Your task to perform on an android device: turn off javascript in the chrome app Image 0: 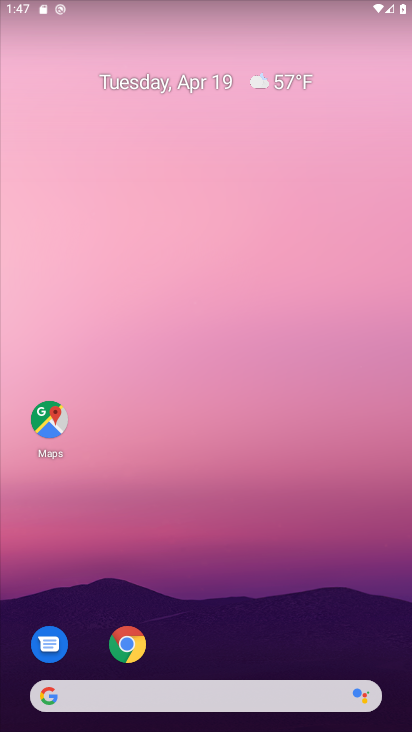
Step 0: click (118, 644)
Your task to perform on an android device: turn off javascript in the chrome app Image 1: 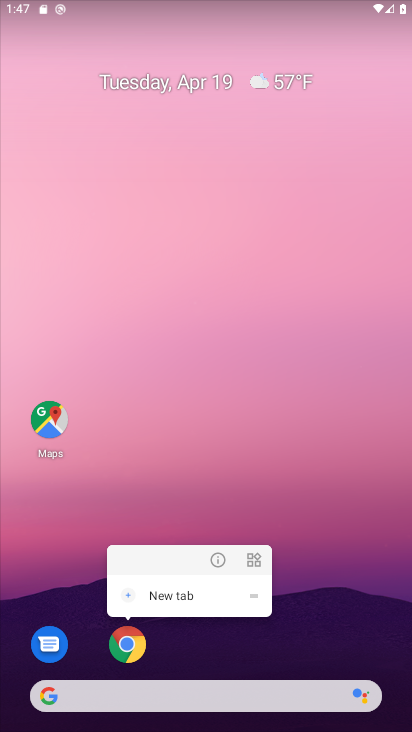
Step 1: click (118, 644)
Your task to perform on an android device: turn off javascript in the chrome app Image 2: 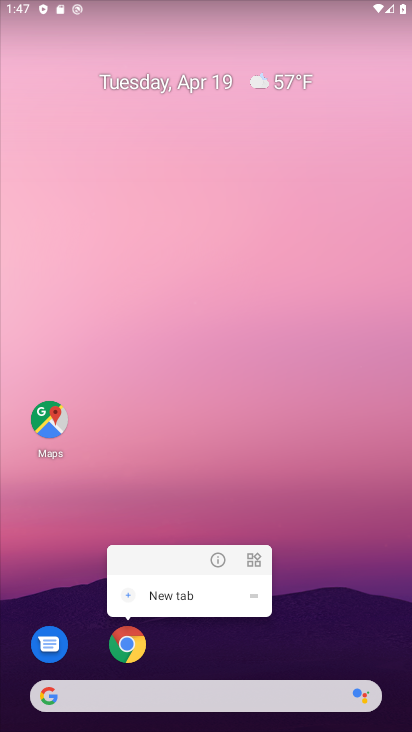
Step 2: click (130, 645)
Your task to perform on an android device: turn off javascript in the chrome app Image 3: 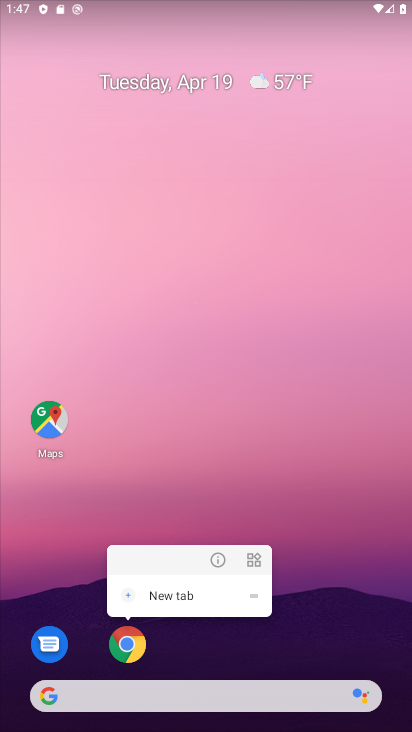
Step 3: click (130, 645)
Your task to perform on an android device: turn off javascript in the chrome app Image 4: 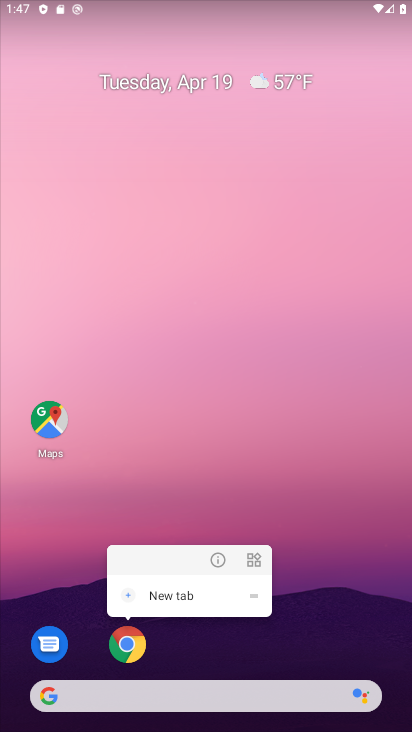
Step 4: click (118, 658)
Your task to perform on an android device: turn off javascript in the chrome app Image 5: 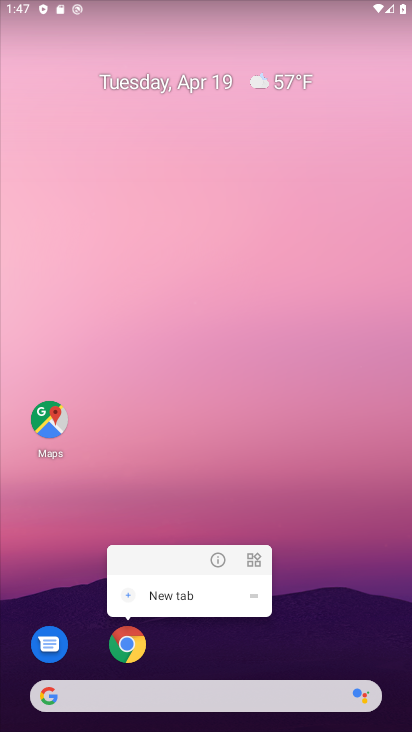
Step 5: click (118, 658)
Your task to perform on an android device: turn off javascript in the chrome app Image 6: 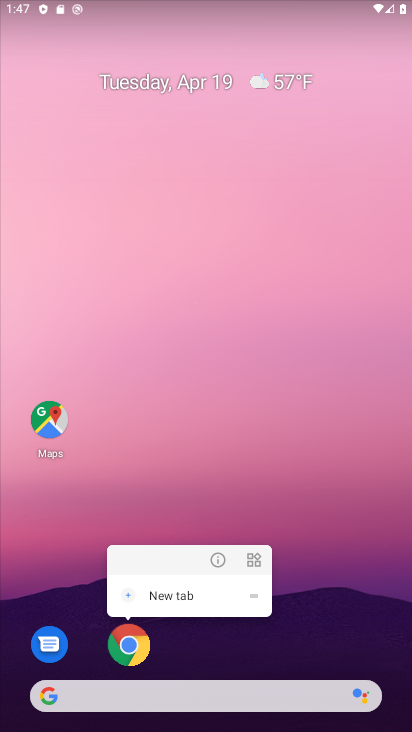
Step 6: click (118, 658)
Your task to perform on an android device: turn off javascript in the chrome app Image 7: 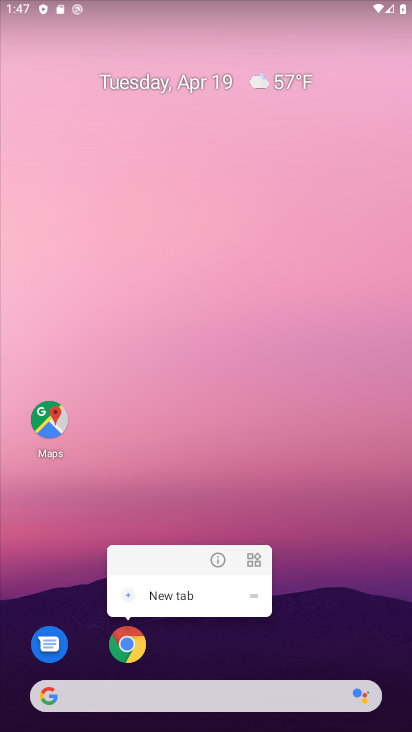
Step 7: click (114, 659)
Your task to perform on an android device: turn off javascript in the chrome app Image 8: 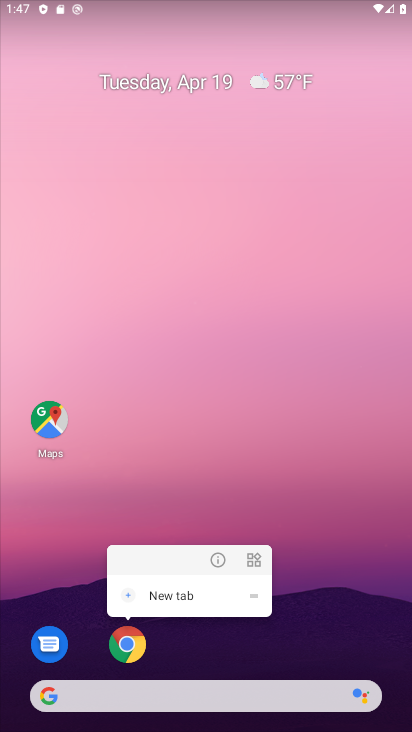
Step 8: click (130, 649)
Your task to perform on an android device: turn off javascript in the chrome app Image 9: 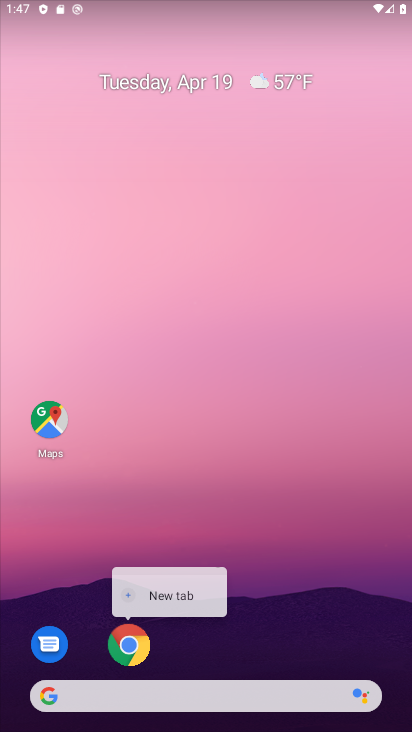
Step 9: click (130, 649)
Your task to perform on an android device: turn off javascript in the chrome app Image 10: 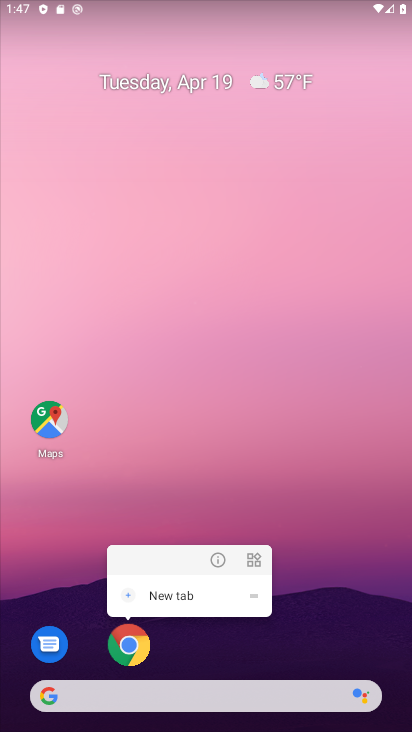
Step 10: click (130, 649)
Your task to perform on an android device: turn off javascript in the chrome app Image 11: 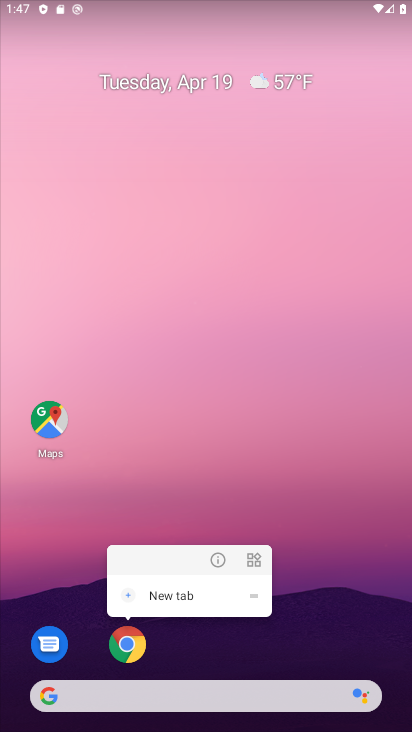
Step 11: click (130, 649)
Your task to perform on an android device: turn off javascript in the chrome app Image 12: 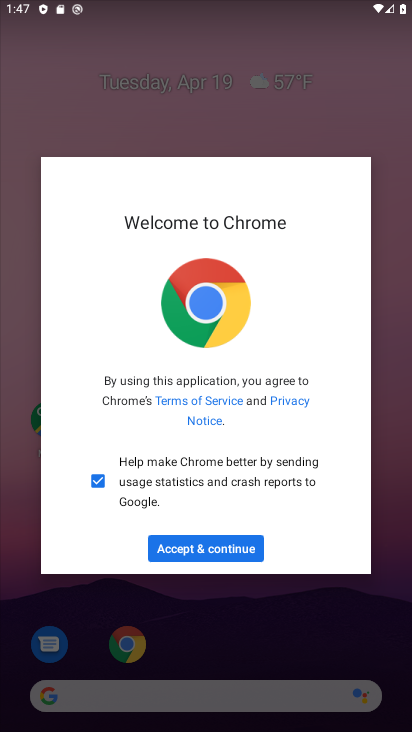
Step 12: click (223, 551)
Your task to perform on an android device: turn off javascript in the chrome app Image 13: 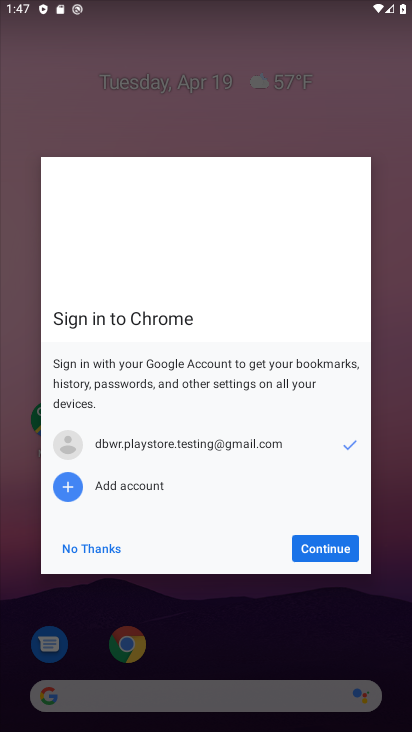
Step 13: click (106, 545)
Your task to perform on an android device: turn off javascript in the chrome app Image 14: 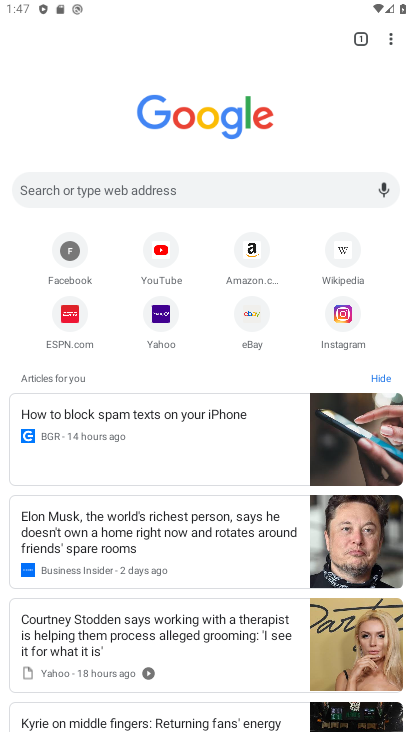
Step 14: click (382, 38)
Your task to perform on an android device: turn off javascript in the chrome app Image 15: 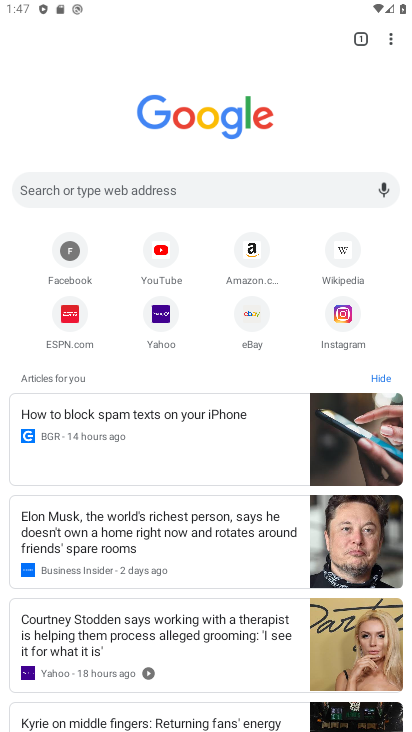
Step 15: click (392, 41)
Your task to perform on an android device: turn off javascript in the chrome app Image 16: 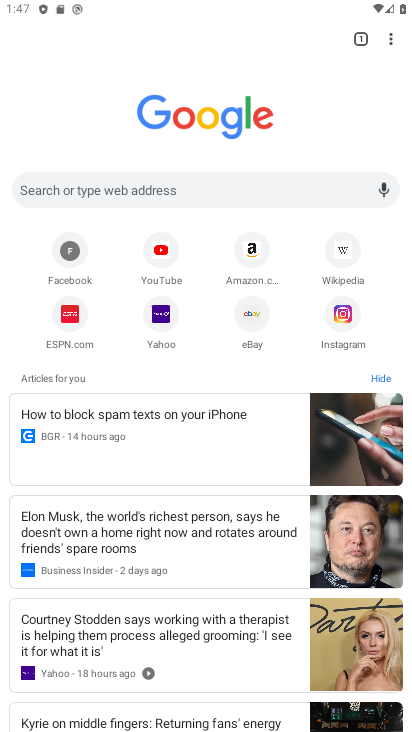
Step 16: click (392, 41)
Your task to perform on an android device: turn off javascript in the chrome app Image 17: 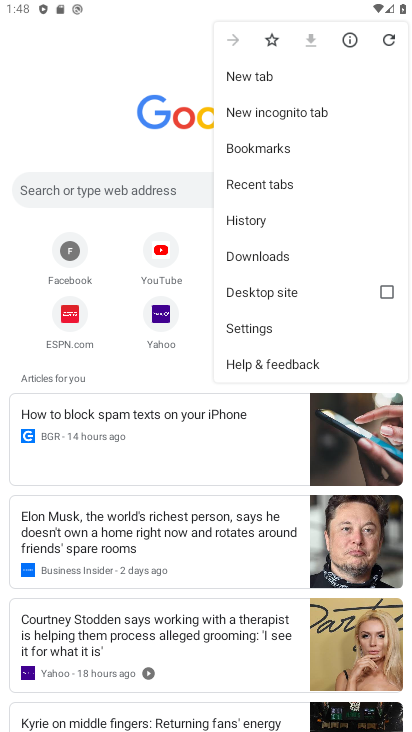
Step 17: click (392, 41)
Your task to perform on an android device: turn off javascript in the chrome app Image 18: 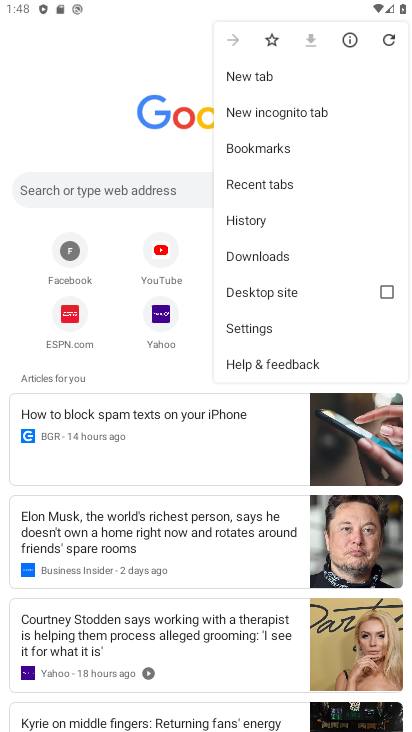
Step 18: click (255, 328)
Your task to perform on an android device: turn off javascript in the chrome app Image 19: 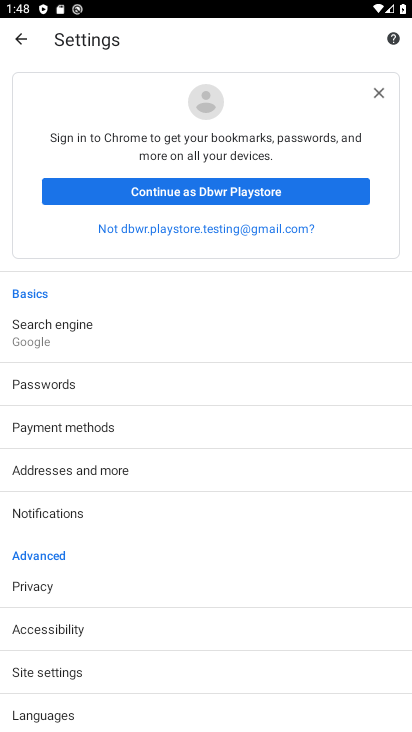
Step 19: drag from (188, 505) to (294, 91)
Your task to perform on an android device: turn off javascript in the chrome app Image 20: 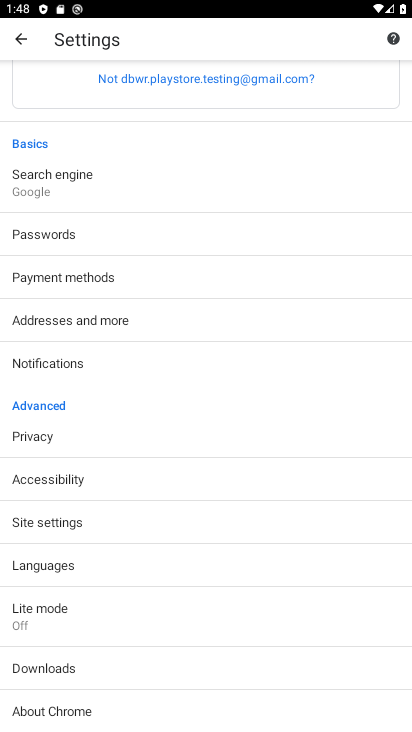
Step 20: click (82, 531)
Your task to perform on an android device: turn off javascript in the chrome app Image 21: 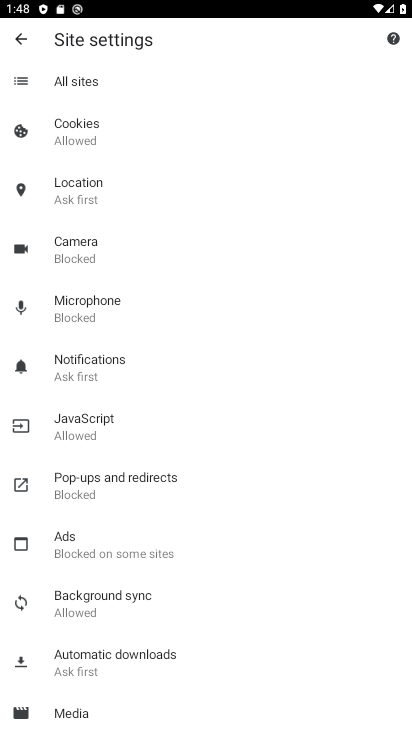
Step 21: drag from (133, 483) to (245, 78)
Your task to perform on an android device: turn off javascript in the chrome app Image 22: 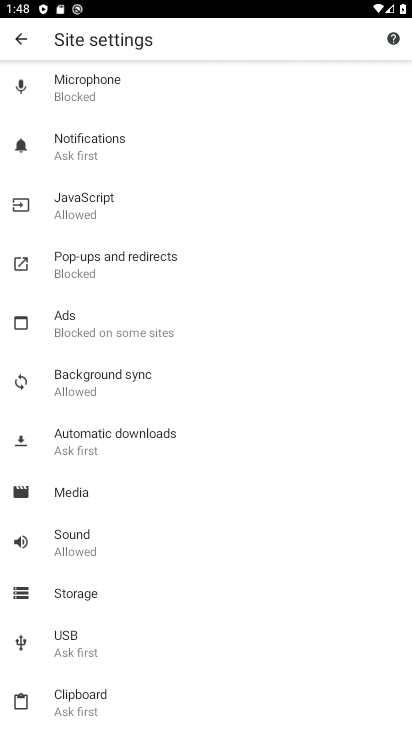
Step 22: click (140, 212)
Your task to perform on an android device: turn off javascript in the chrome app Image 23: 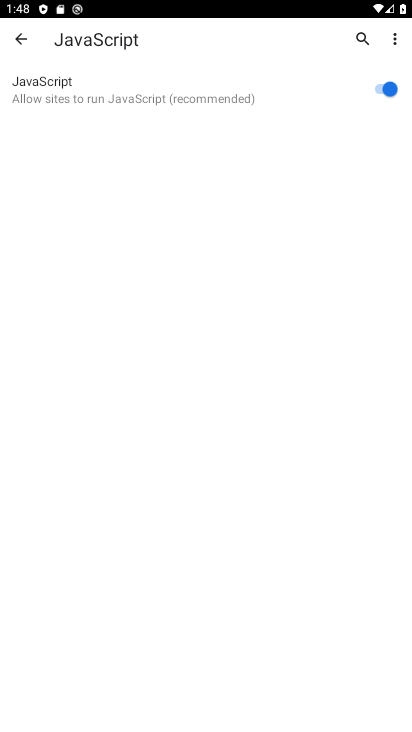
Step 23: click (381, 92)
Your task to perform on an android device: turn off javascript in the chrome app Image 24: 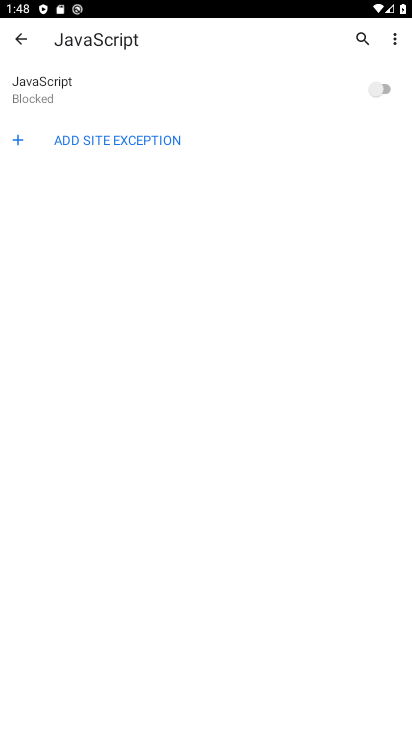
Step 24: task complete